Your task to perform on an android device: delete browsing data in the chrome app Image 0: 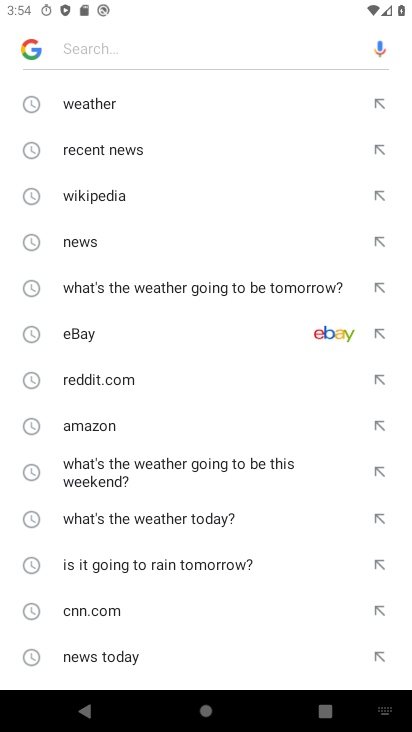
Step 0: press home button
Your task to perform on an android device: delete browsing data in the chrome app Image 1: 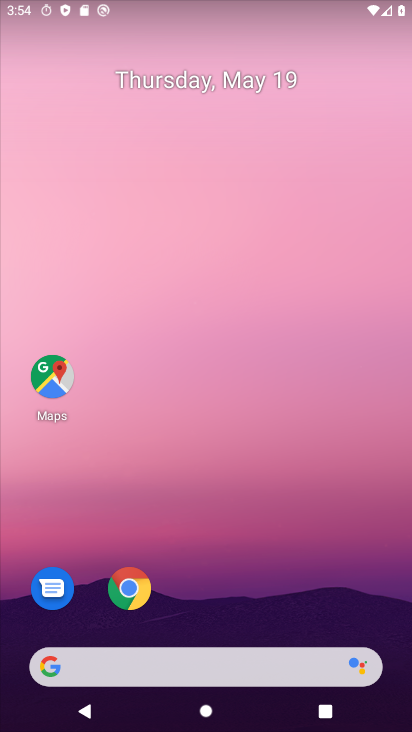
Step 1: click (132, 592)
Your task to perform on an android device: delete browsing data in the chrome app Image 2: 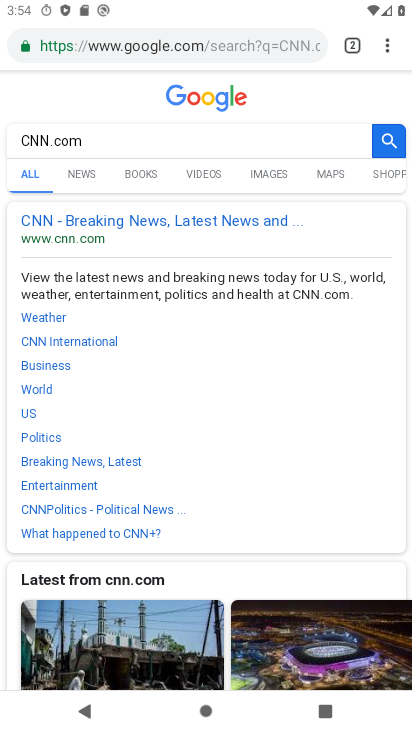
Step 2: click (388, 50)
Your task to perform on an android device: delete browsing data in the chrome app Image 3: 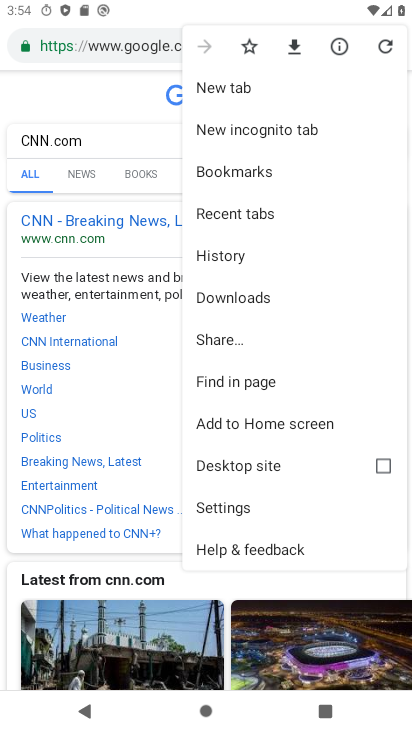
Step 3: click (233, 256)
Your task to perform on an android device: delete browsing data in the chrome app Image 4: 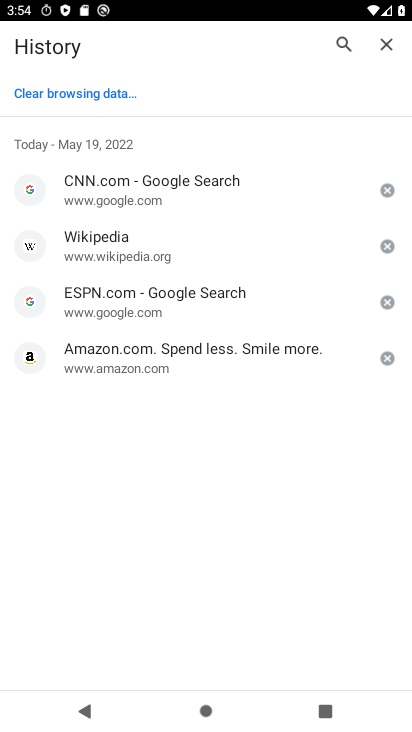
Step 4: click (80, 94)
Your task to perform on an android device: delete browsing data in the chrome app Image 5: 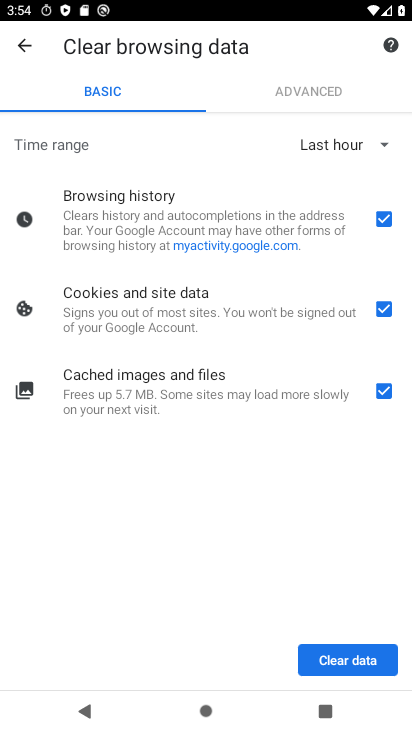
Step 5: click (330, 666)
Your task to perform on an android device: delete browsing data in the chrome app Image 6: 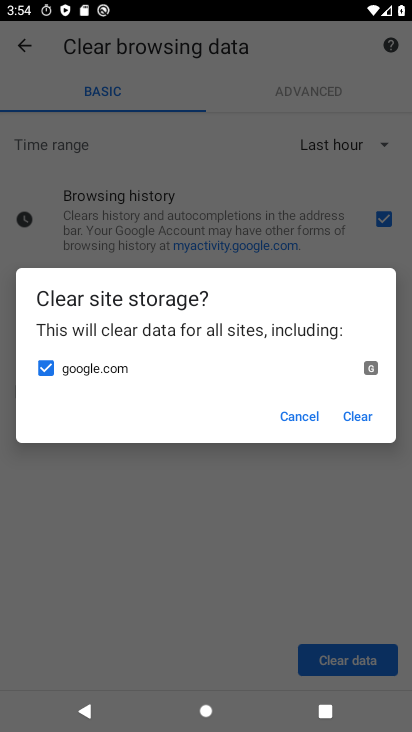
Step 6: click (354, 415)
Your task to perform on an android device: delete browsing data in the chrome app Image 7: 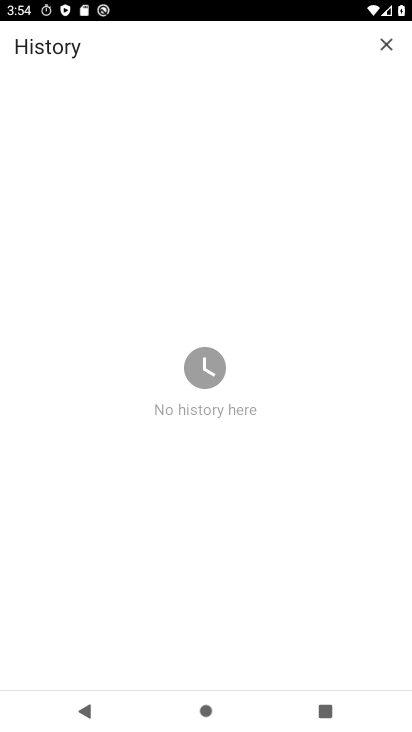
Step 7: task complete